Your task to perform on an android device: Open calendar and show me the third week of next month Image 0: 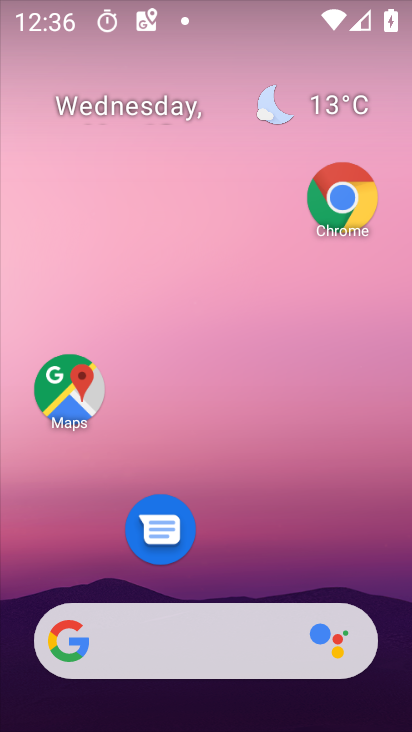
Step 0: click (100, 114)
Your task to perform on an android device: Open calendar and show me the third week of next month Image 1: 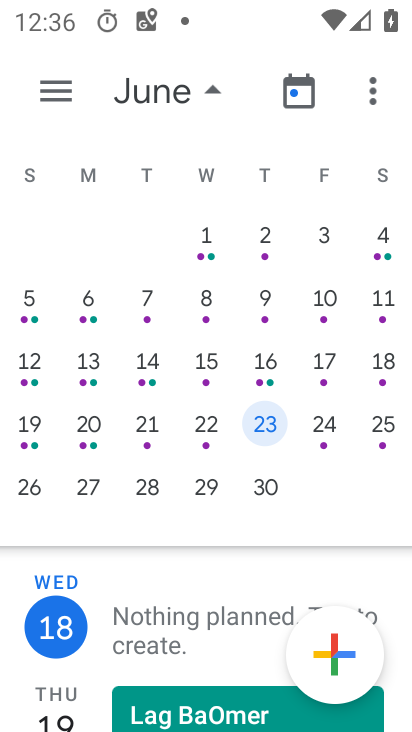
Step 1: click (272, 368)
Your task to perform on an android device: Open calendar and show me the third week of next month Image 2: 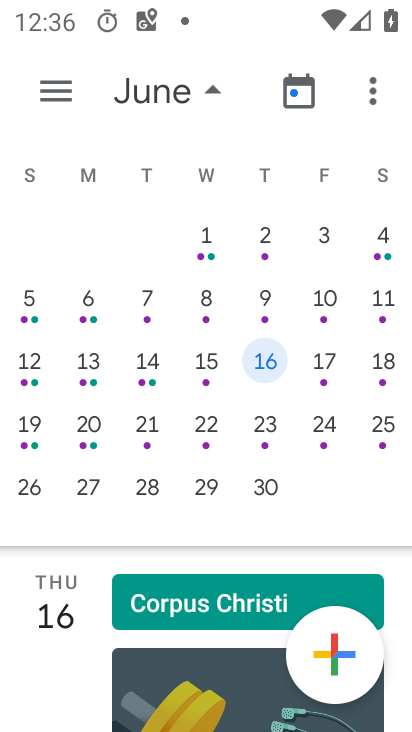
Step 2: task complete